Your task to perform on an android device: toggle javascript in the chrome app Image 0: 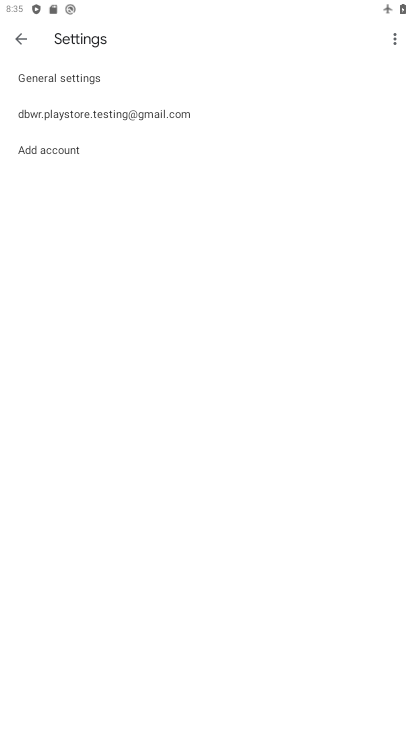
Step 0: press home button
Your task to perform on an android device: toggle javascript in the chrome app Image 1: 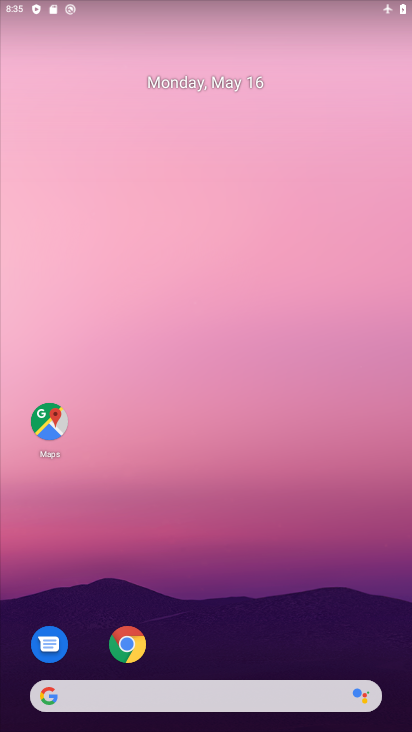
Step 1: click (133, 651)
Your task to perform on an android device: toggle javascript in the chrome app Image 2: 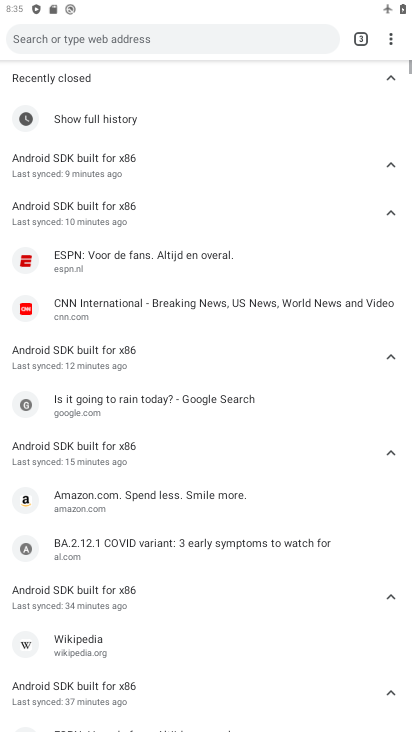
Step 2: click (384, 34)
Your task to perform on an android device: toggle javascript in the chrome app Image 3: 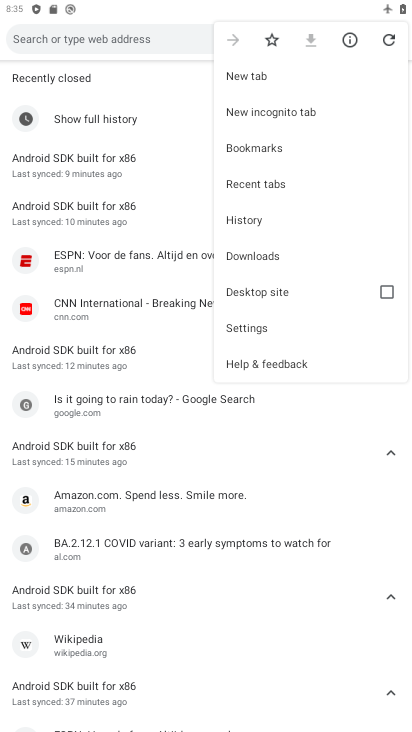
Step 3: click (297, 332)
Your task to perform on an android device: toggle javascript in the chrome app Image 4: 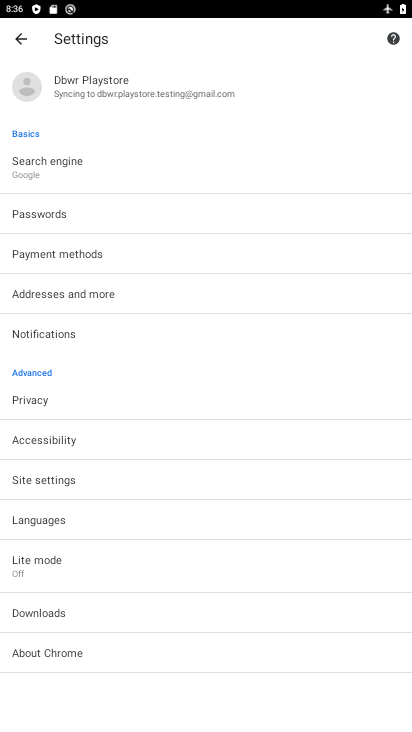
Step 4: click (58, 477)
Your task to perform on an android device: toggle javascript in the chrome app Image 5: 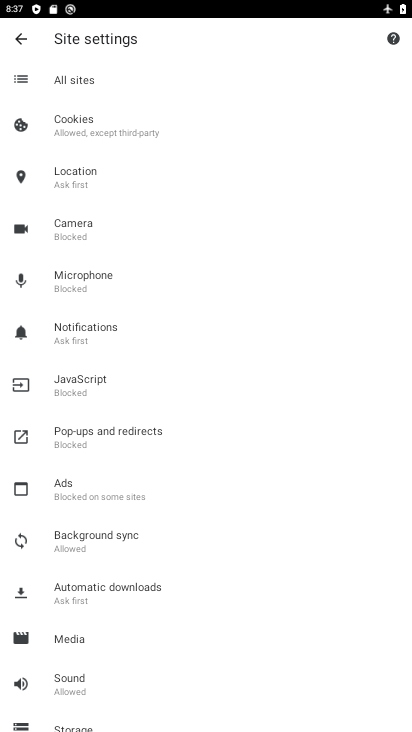
Step 5: click (94, 380)
Your task to perform on an android device: toggle javascript in the chrome app Image 6: 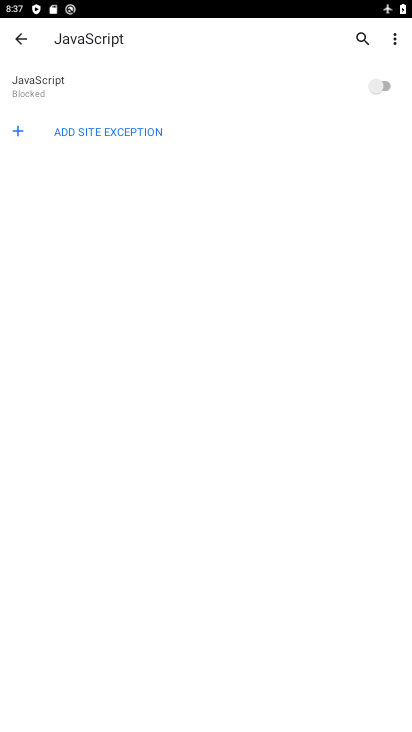
Step 6: click (371, 87)
Your task to perform on an android device: toggle javascript in the chrome app Image 7: 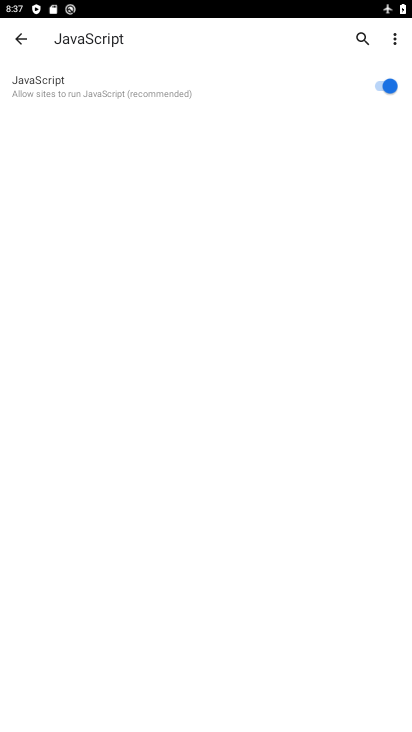
Step 7: task complete